Your task to perform on an android device: Open Maps and search for coffee Image 0: 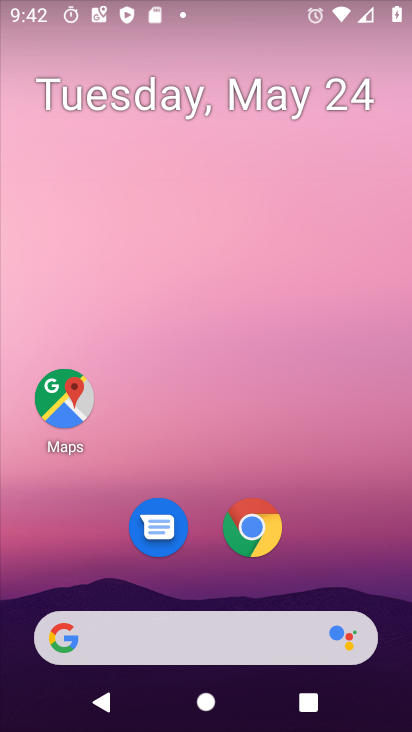
Step 0: click (49, 398)
Your task to perform on an android device: Open Maps and search for coffee Image 1: 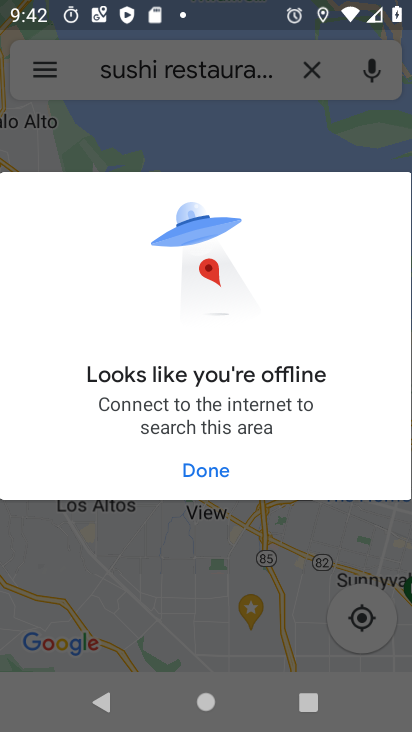
Step 1: click (220, 465)
Your task to perform on an android device: Open Maps and search for coffee Image 2: 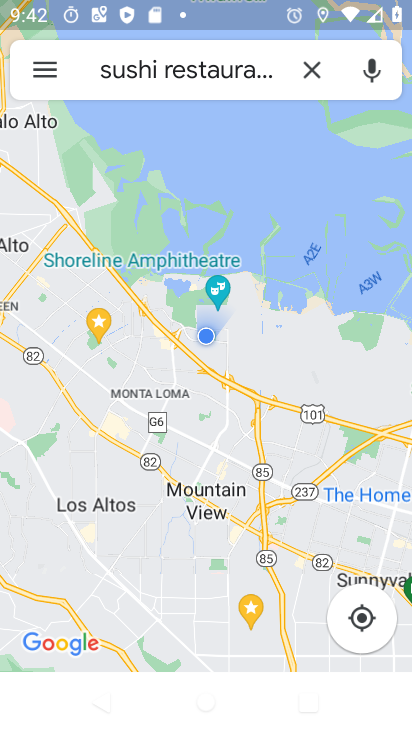
Step 2: click (313, 69)
Your task to perform on an android device: Open Maps and search for coffee Image 3: 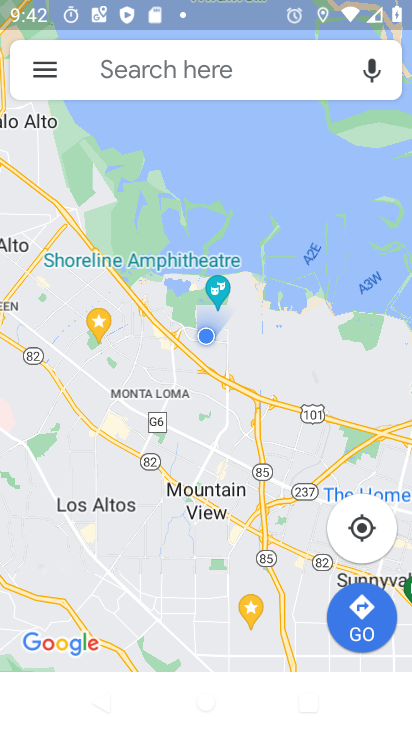
Step 3: click (140, 67)
Your task to perform on an android device: Open Maps and search for coffee Image 4: 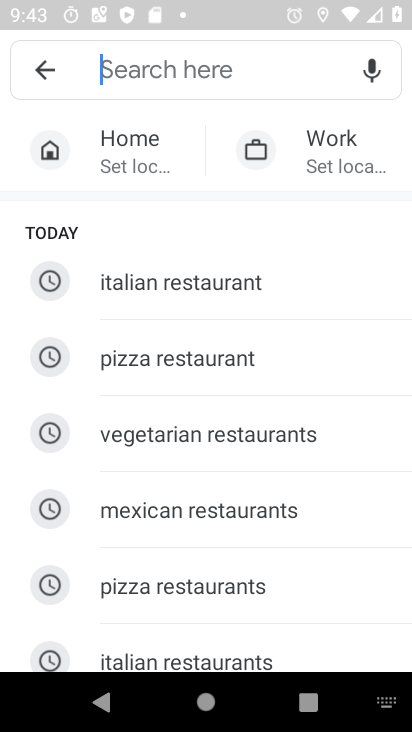
Step 4: type "coffee"
Your task to perform on an android device: Open Maps and search for coffee Image 5: 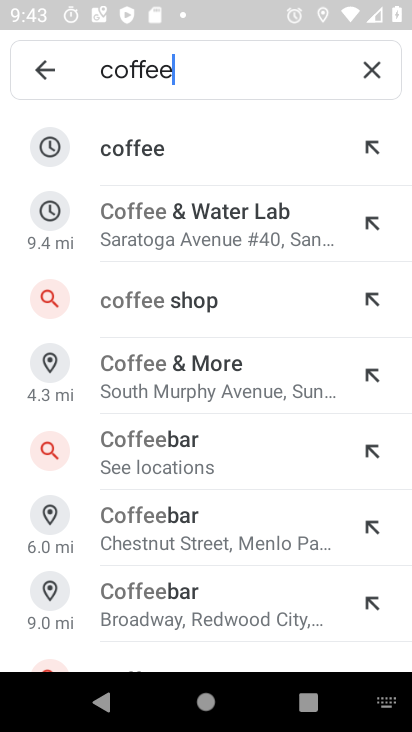
Step 5: click (125, 148)
Your task to perform on an android device: Open Maps and search for coffee Image 6: 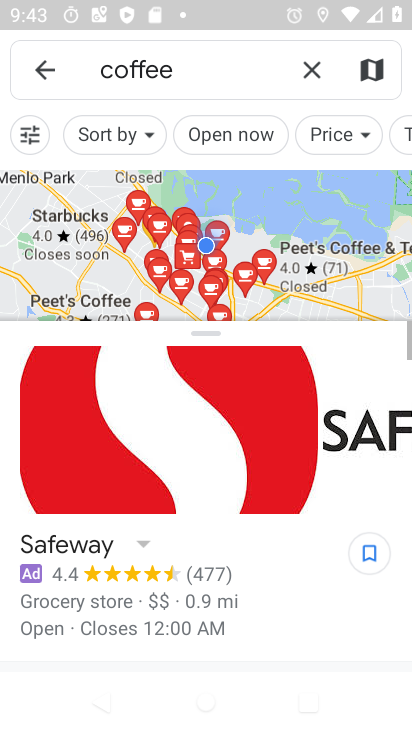
Step 6: task complete